Your task to perform on an android device: check android version Image 0: 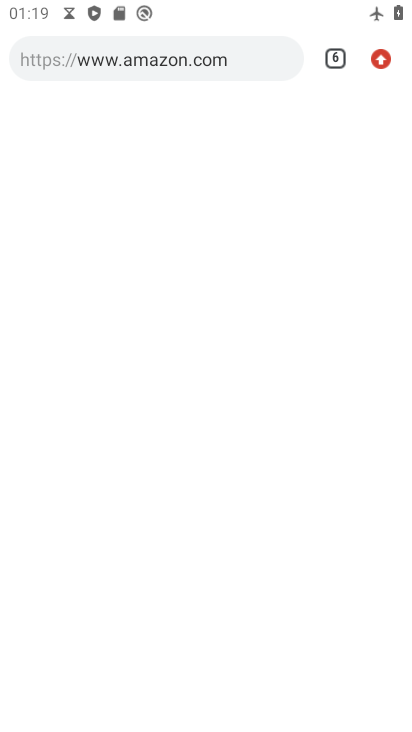
Step 0: press home button
Your task to perform on an android device: check android version Image 1: 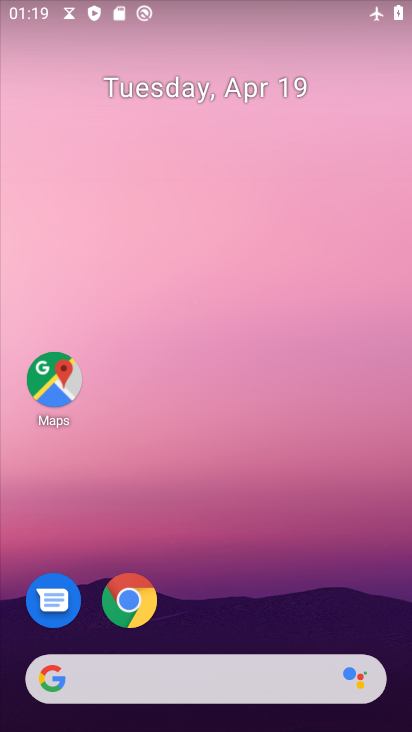
Step 1: drag from (213, 642) to (218, 44)
Your task to perform on an android device: check android version Image 2: 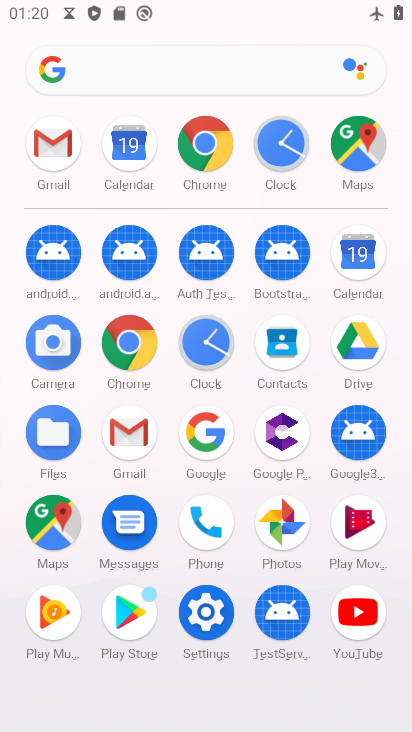
Step 2: click (190, 623)
Your task to perform on an android device: check android version Image 3: 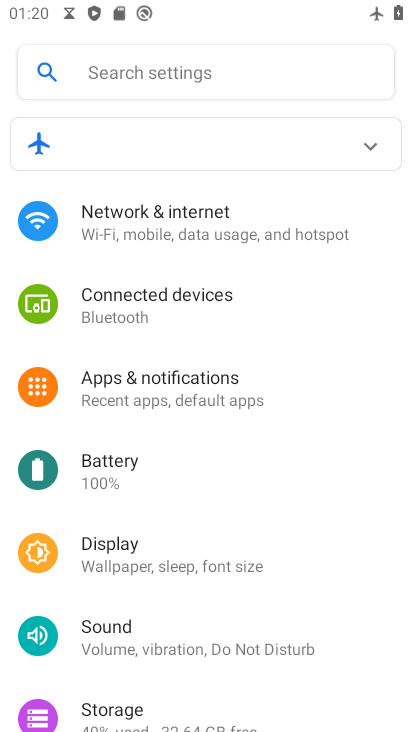
Step 3: drag from (191, 623) to (205, 65)
Your task to perform on an android device: check android version Image 4: 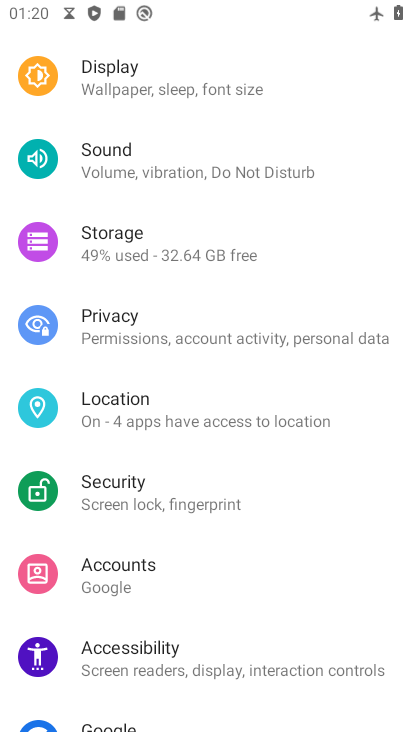
Step 4: drag from (178, 668) to (169, 144)
Your task to perform on an android device: check android version Image 5: 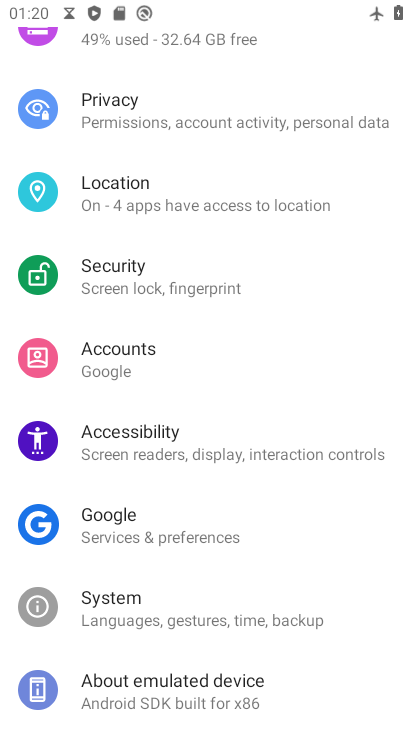
Step 5: click (156, 689)
Your task to perform on an android device: check android version Image 6: 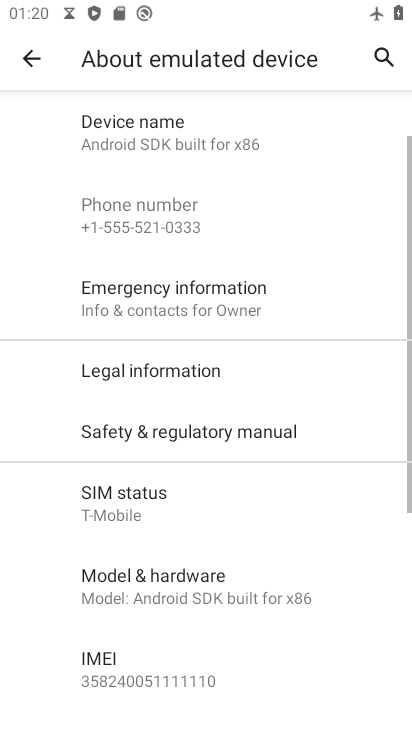
Step 6: drag from (162, 621) to (149, 252)
Your task to perform on an android device: check android version Image 7: 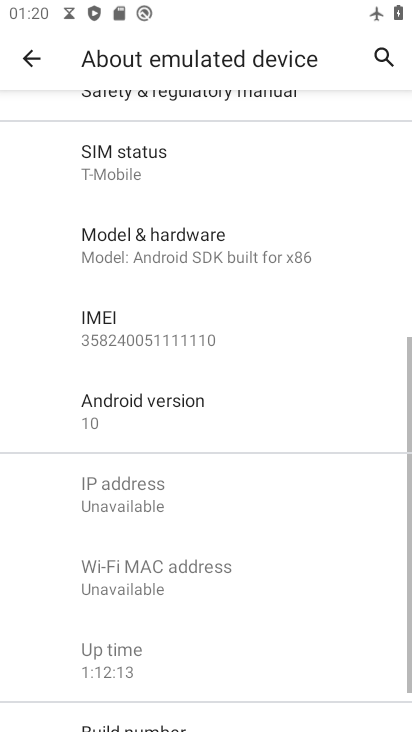
Step 7: click (122, 417)
Your task to perform on an android device: check android version Image 8: 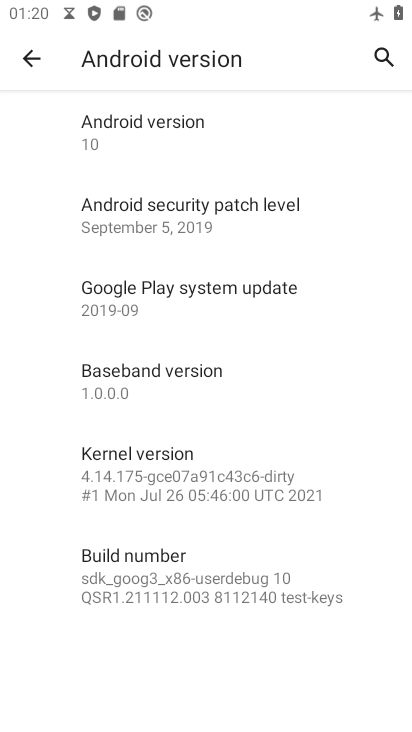
Step 8: task complete